Your task to perform on an android device: all mails in gmail Image 0: 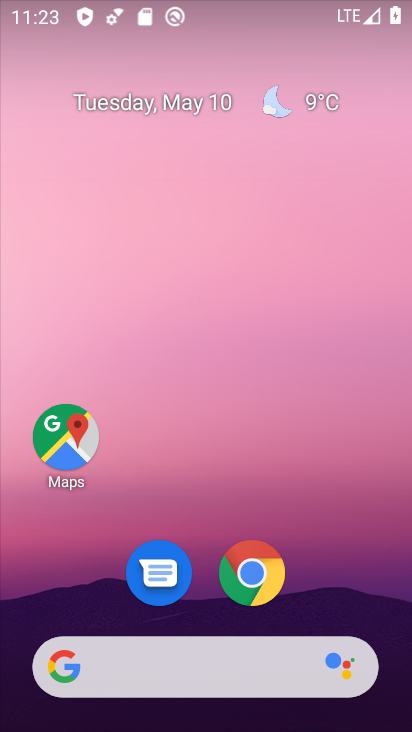
Step 0: press home button
Your task to perform on an android device: all mails in gmail Image 1: 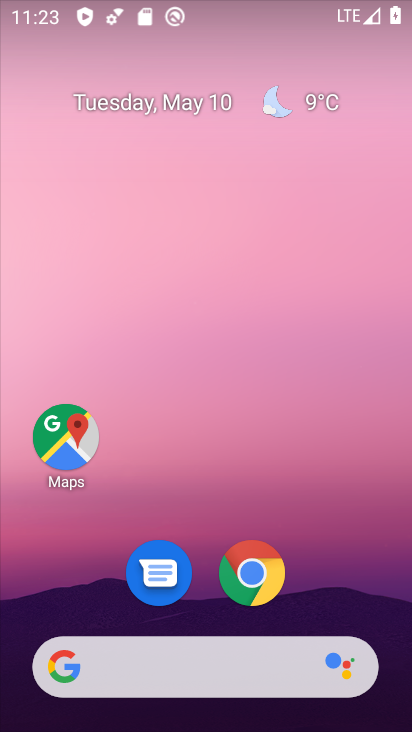
Step 1: drag from (172, 672) to (278, 262)
Your task to perform on an android device: all mails in gmail Image 2: 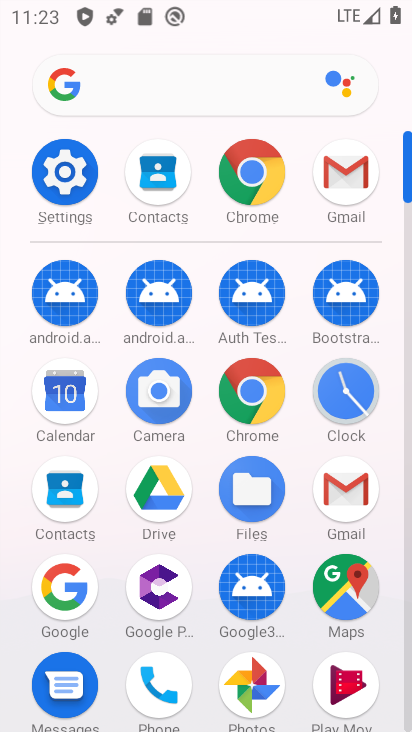
Step 2: click (348, 189)
Your task to perform on an android device: all mails in gmail Image 3: 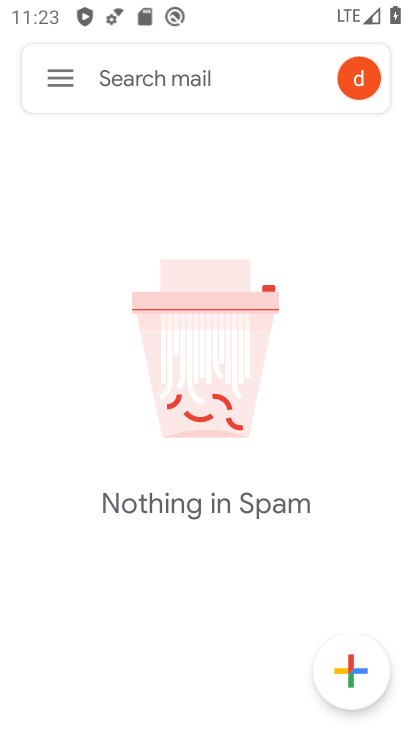
Step 3: click (61, 87)
Your task to perform on an android device: all mails in gmail Image 4: 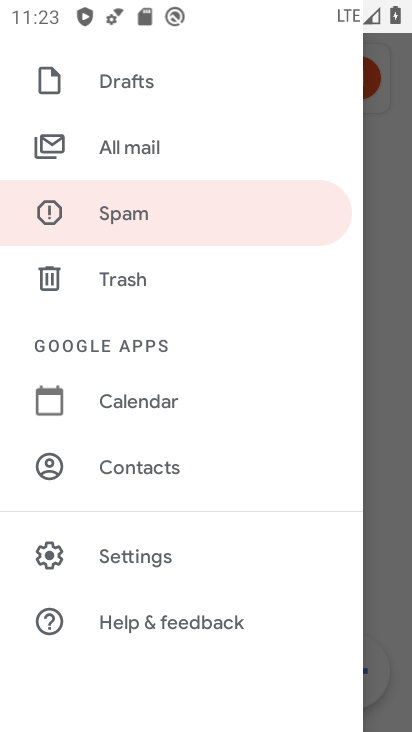
Step 4: click (133, 150)
Your task to perform on an android device: all mails in gmail Image 5: 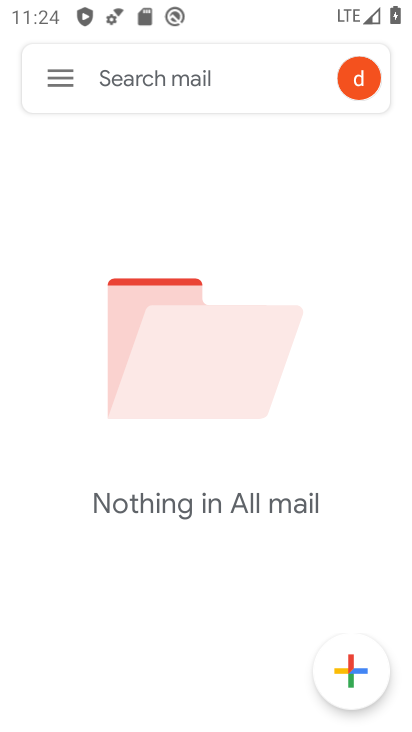
Step 5: task complete